Your task to perform on an android device: Open the map Image 0: 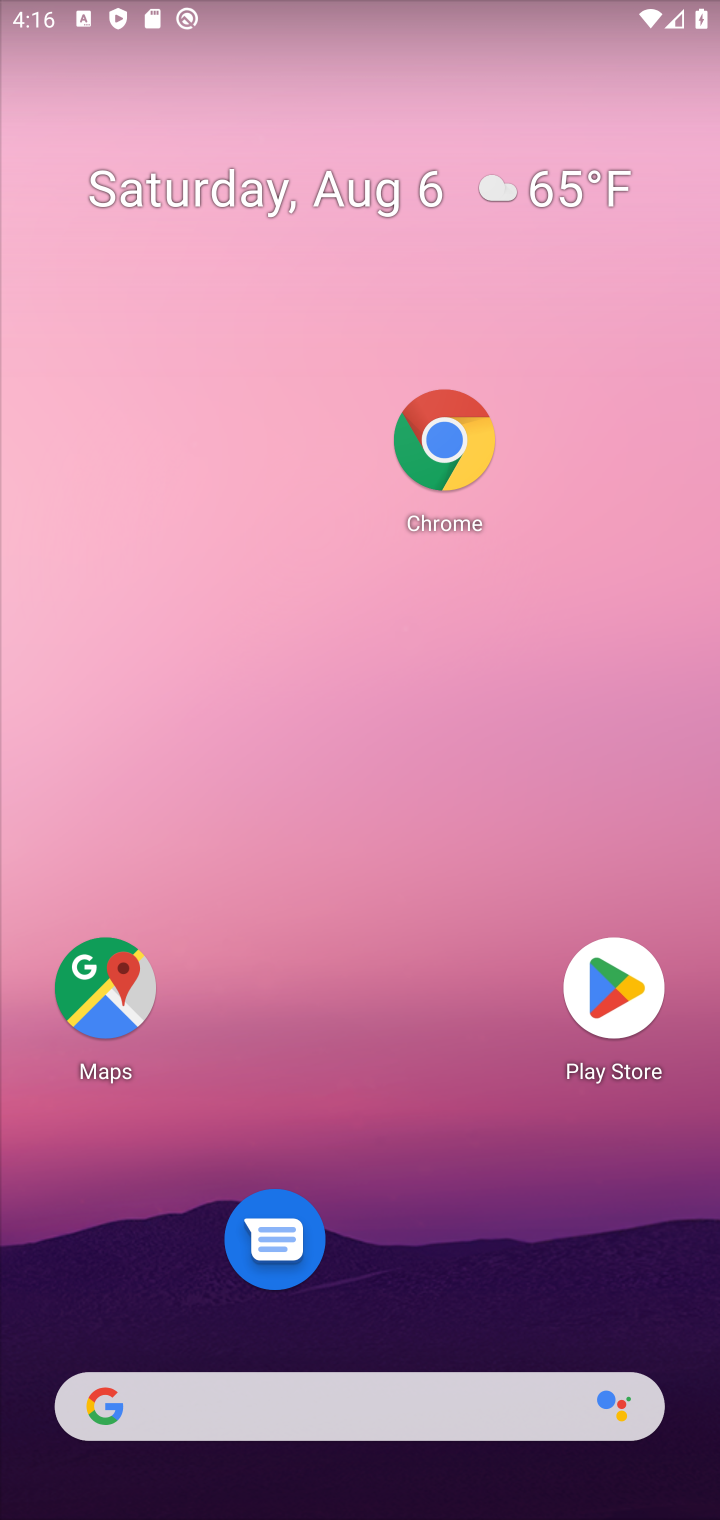
Step 0: drag from (475, 888) to (484, 12)
Your task to perform on an android device: Open the map Image 1: 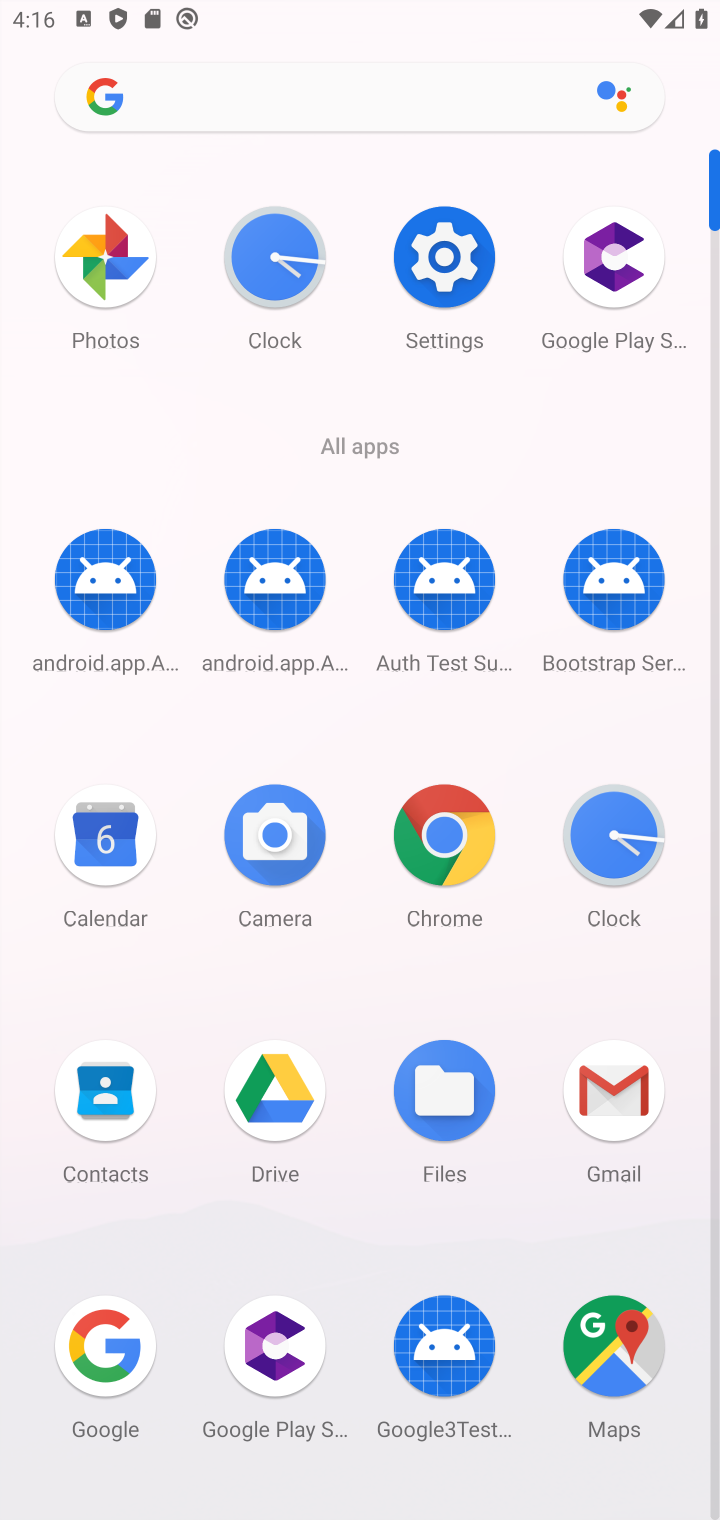
Step 1: click (624, 1335)
Your task to perform on an android device: Open the map Image 2: 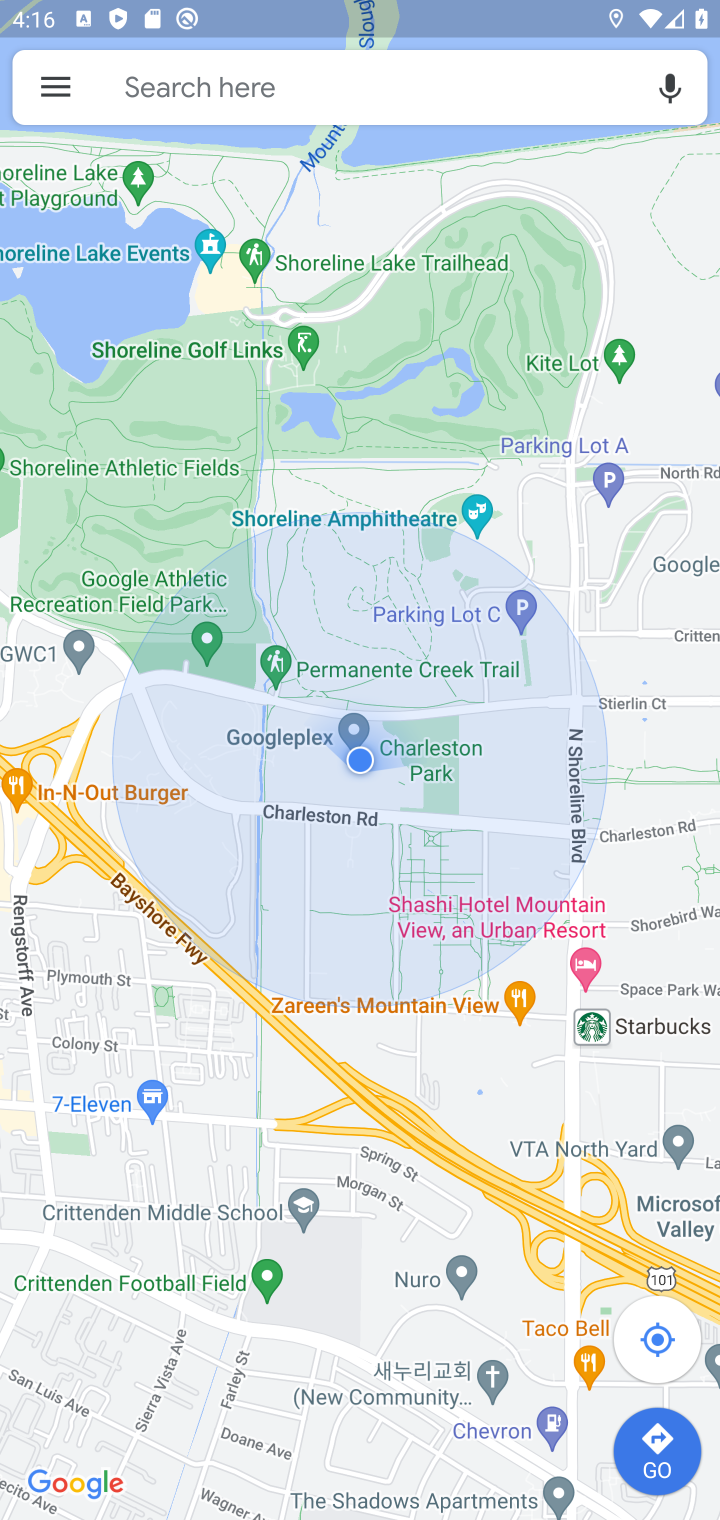
Step 2: task complete